Your task to perform on an android device: Turn off the flashlight Image 0: 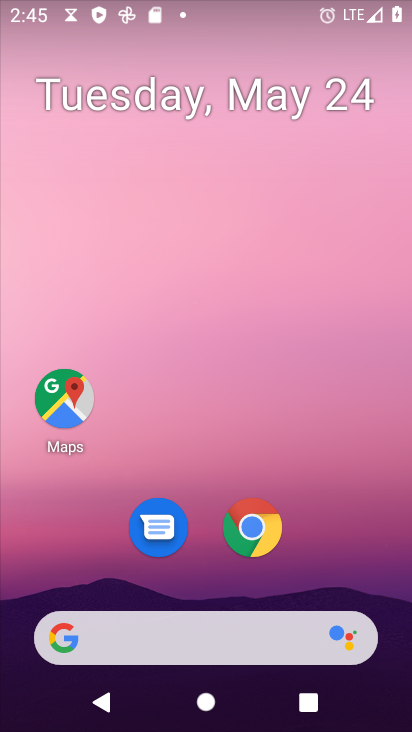
Step 0: drag from (218, 0) to (218, 474)
Your task to perform on an android device: Turn off the flashlight Image 1: 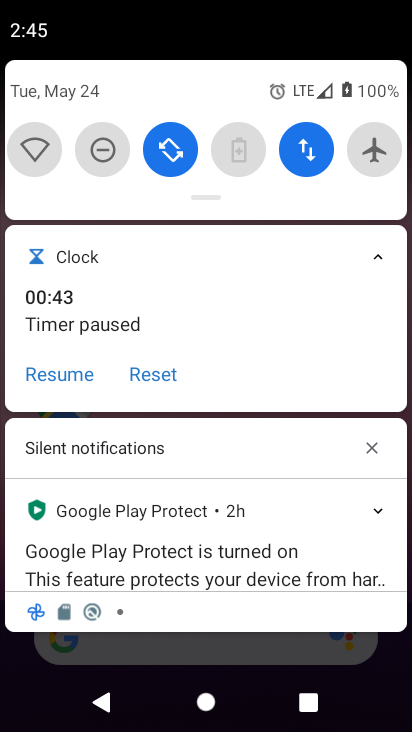
Step 1: task complete